Your task to perform on an android device: Open my contact list Image 0: 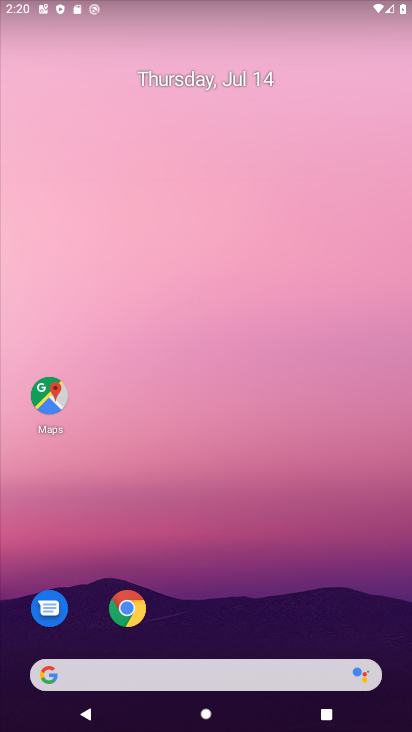
Step 0: drag from (218, 576) to (278, 3)
Your task to perform on an android device: Open my contact list Image 1: 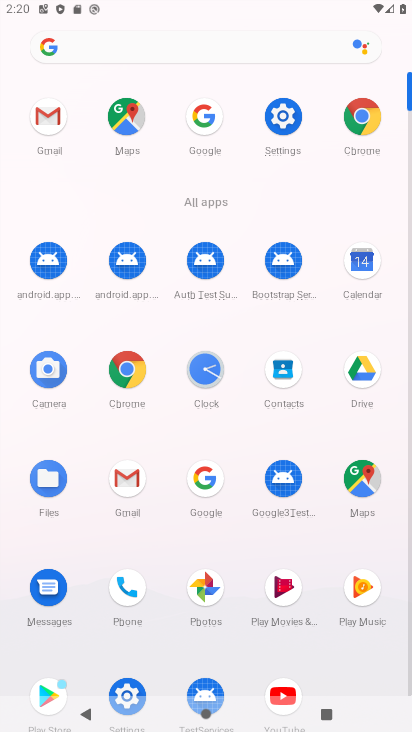
Step 1: click (292, 375)
Your task to perform on an android device: Open my contact list Image 2: 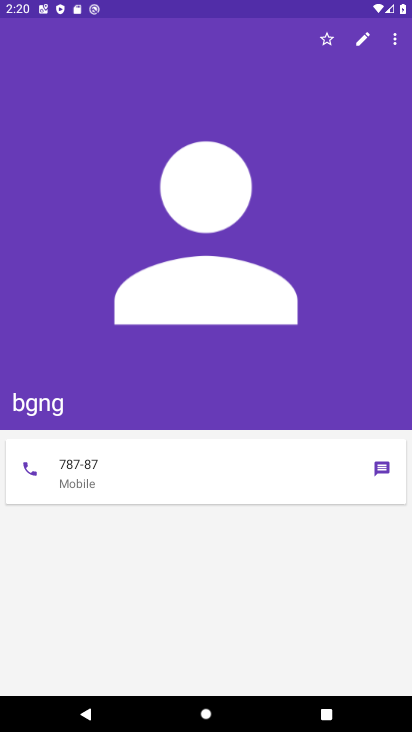
Step 2: task complete